Your task to perform on an android device: visit the assistant section in the google photos Image 0: 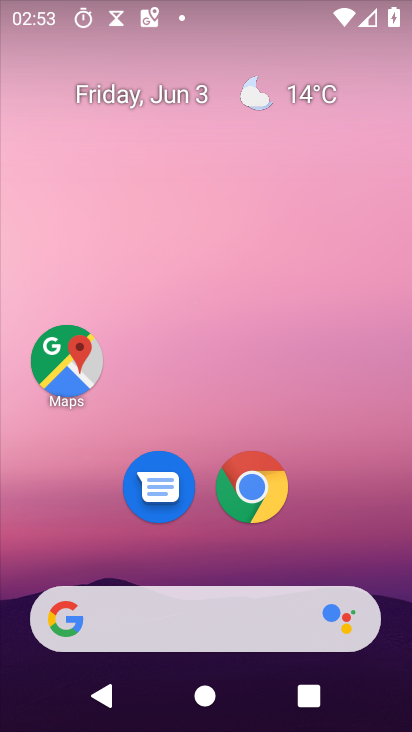
Step 0: drag from (273, 297) to (209, 39)
Your task to perform on an android device: visit the assistant section in the google photos Image 1: 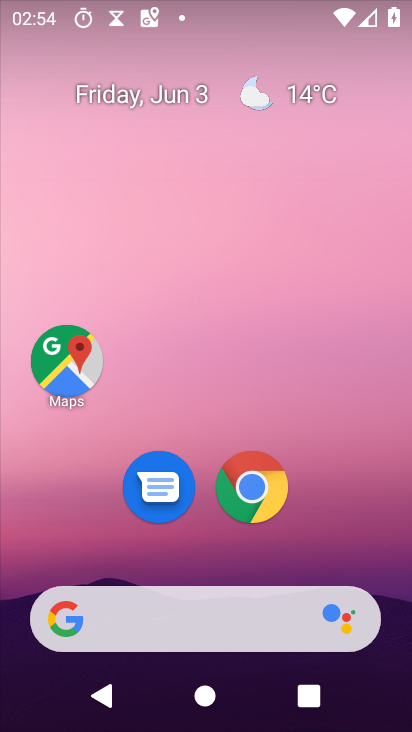
Step 1: drag from (323, 553) to (249, 64)
Your task to perform on an android device: visit the assistant section in the google photos Image 2: 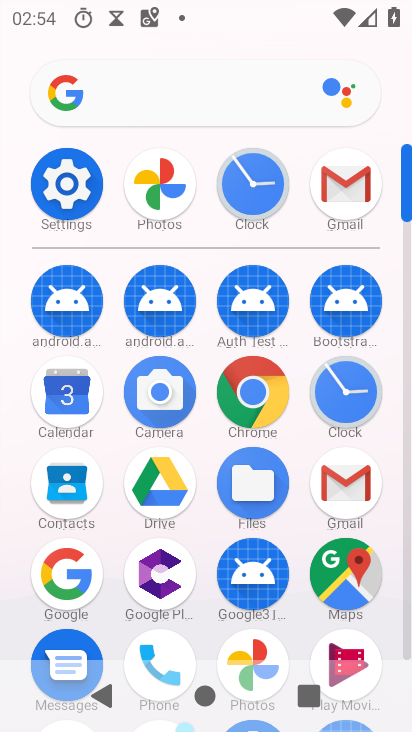
Step 2: click (172, 179)
Your task to perform on an android device: visit the assistant section in the google photos Image 3: 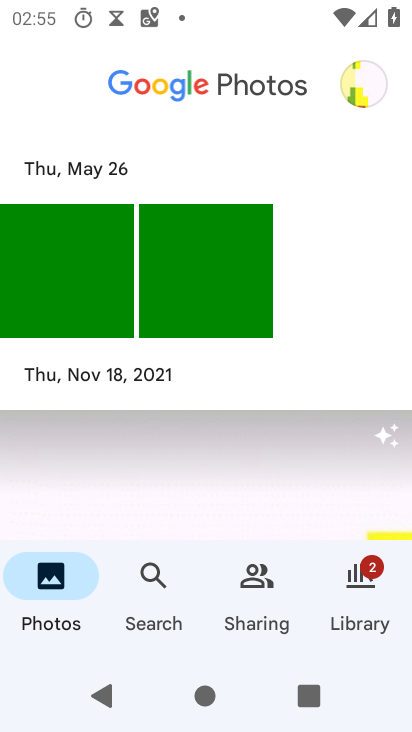
Step 3: task complete